Your task to perform on an android device: Show me productivity apps on the Play Store Image 0: 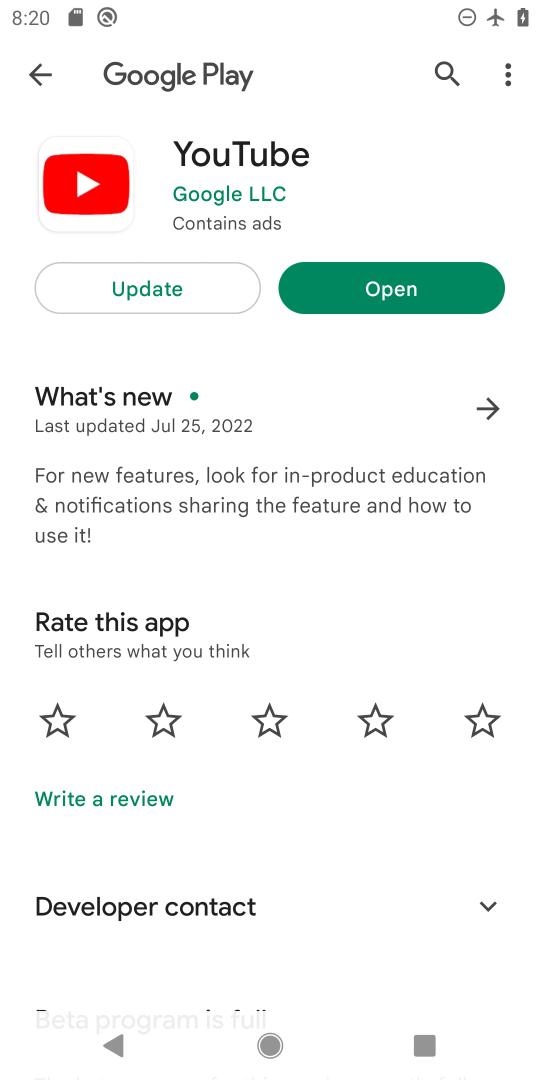
Step 0: click (38, 67)
Your task to perform on an android device: Show me productivity apps on the Play Store Image 1: 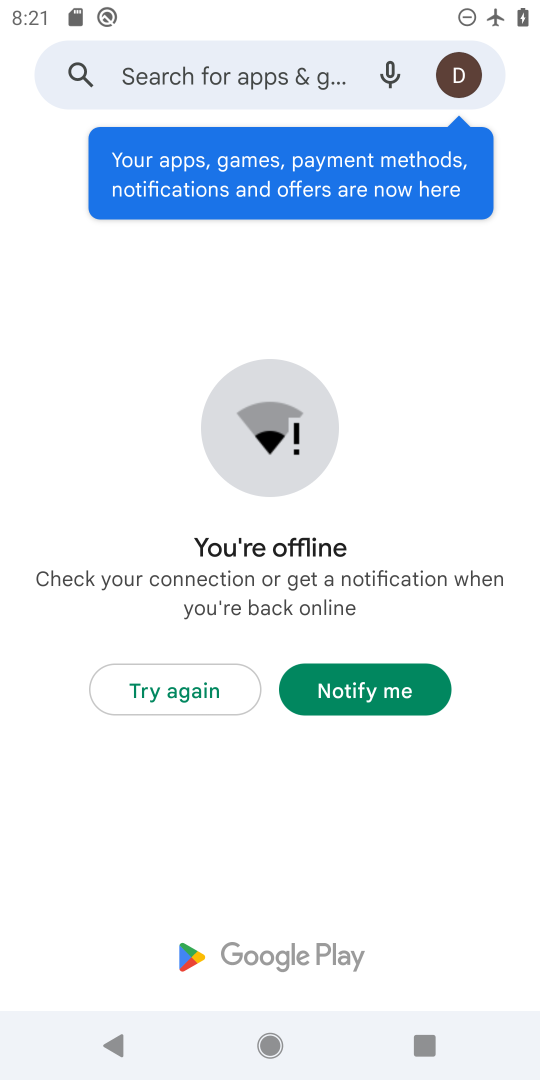
Step 1: click (237, 79)
Your task to perform on an android device: Show me productivity apps on the Play Store Image 2: 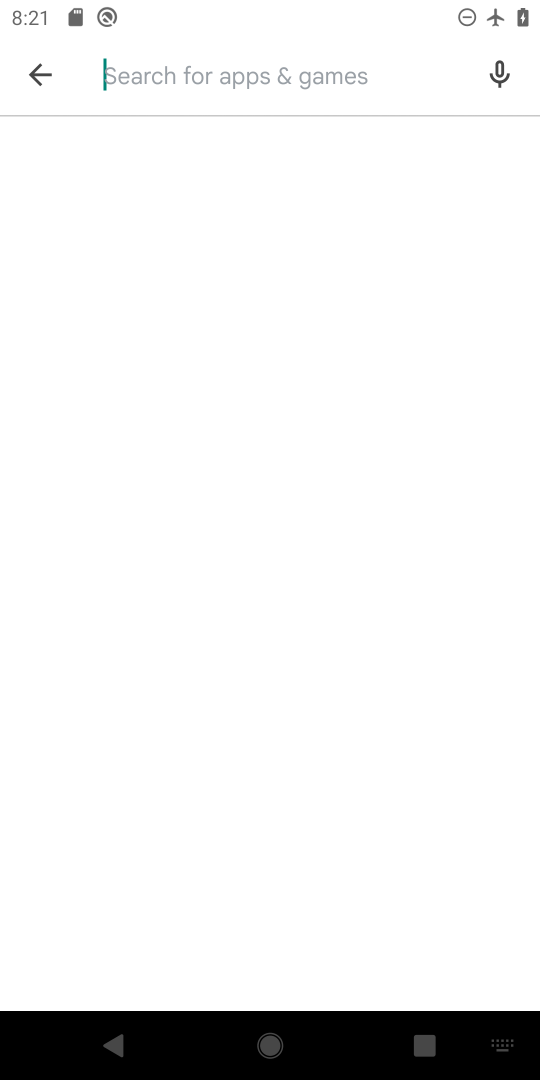
Step 2: type "productivity"
Your task to perform on an android device: Show me productivity apps on the Play Store Image 3: 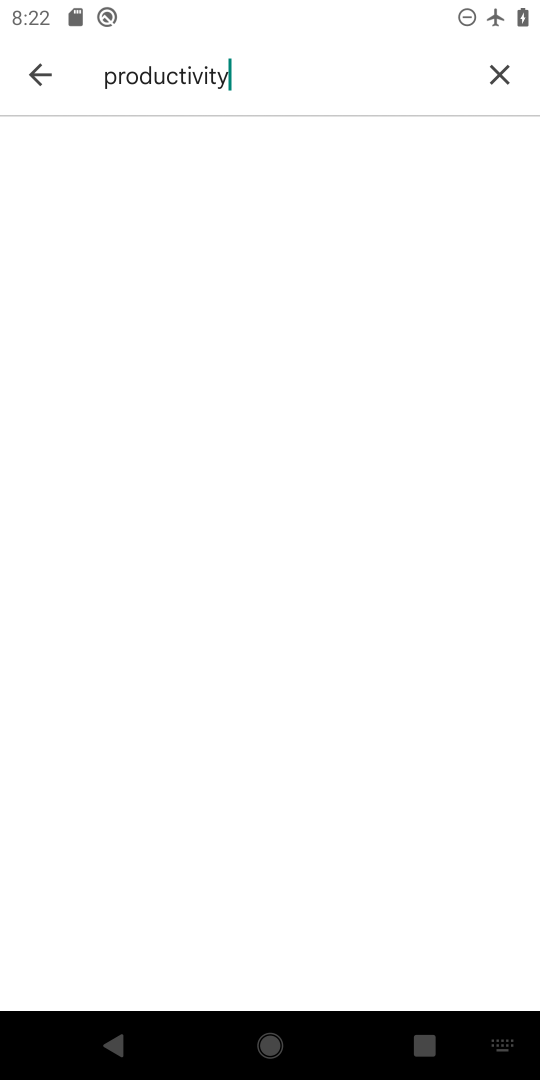
Step 3: task complete